Your task to perform on an android device: Go to Maps Image 0: 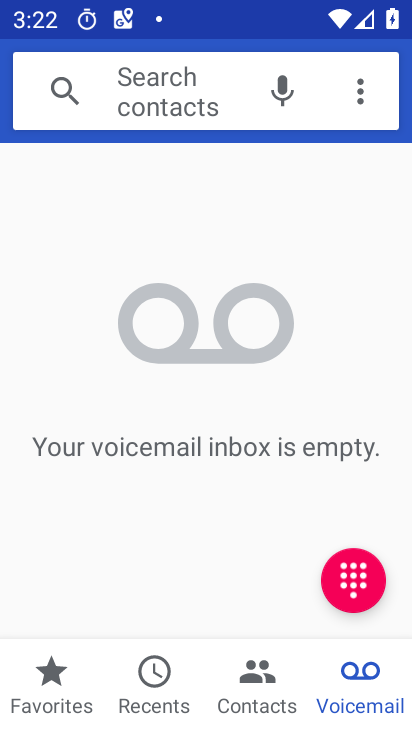
Step 0: press home button
Your task to perform on an android device: Go to Maps Image 1: 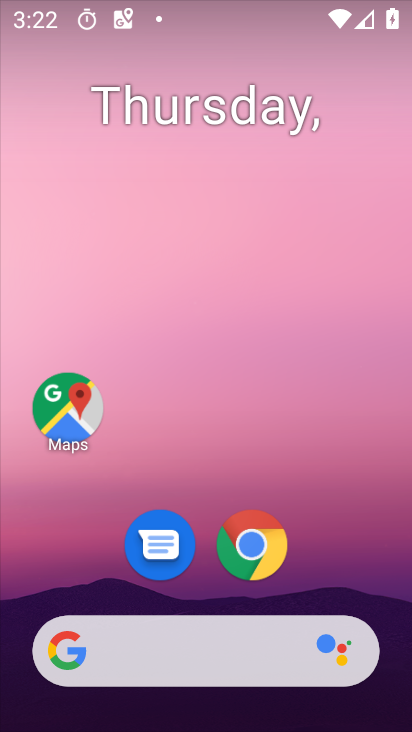
Step 1: drag from (215, 721) to (196, 101)
Your task to perform on an android device: Go to Maps Image 2: 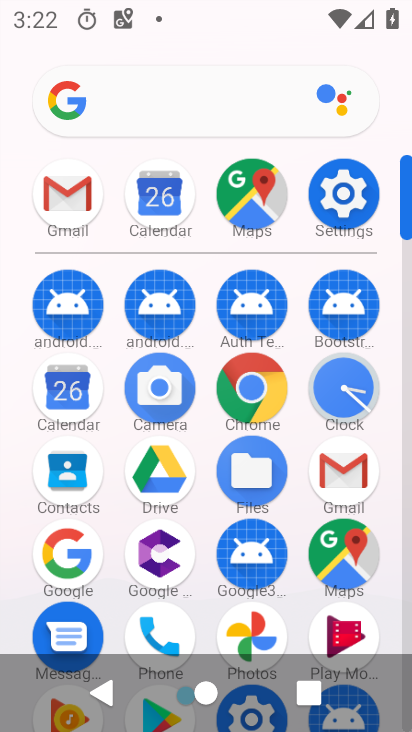
Step 2: click (345, 556)
Your task to perform on an android device: Go to Maps Image 3: 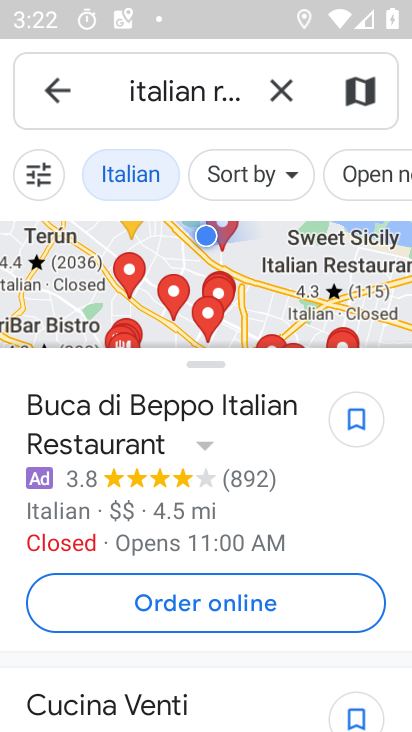
Step 3: task complete